Your task to perform on an android device: Open Yahoo.com Image 0: 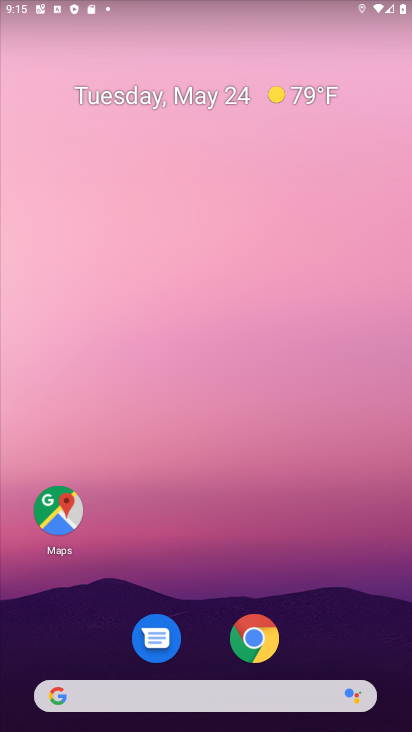
Step 0: click (276, 694)
Your task to perform on an android device: Open Yahoo.com Image 1: 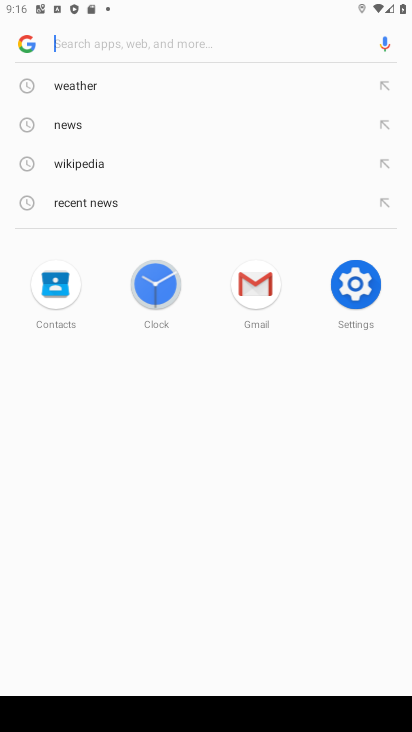
Step 1: type "yahoo.com"
Your task to perform on an android device: Open Yahoo.com Image 2: 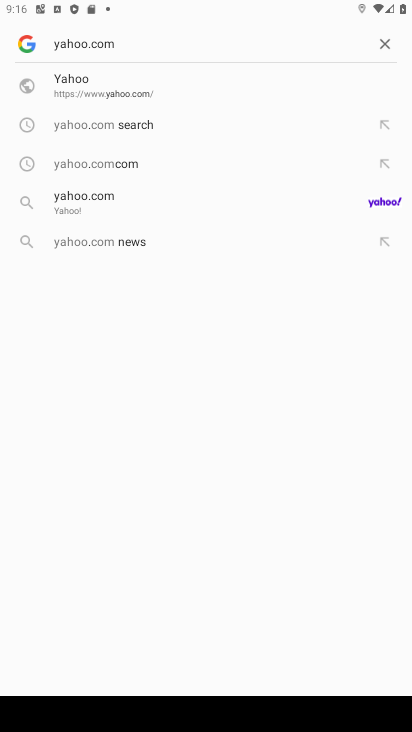
Step 2: click (202, 81)
Your task to perform on an android device: Open Yahoo.com Image 3: 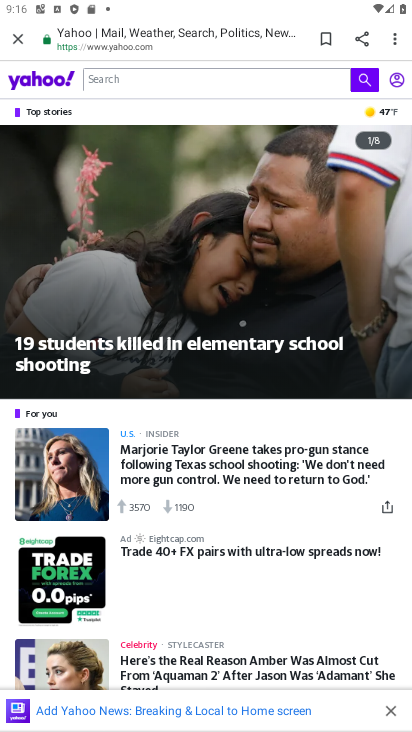
Step 3: task complete